Your task to perform on an android device: Go to location settings Image 0: 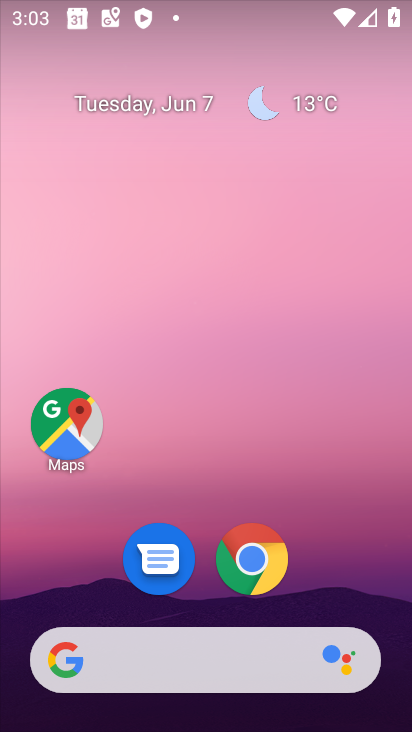
Step 0: drag from (344, 588) to (216, 36)
Your task to perform on an android device: Go to location settings Image 1: 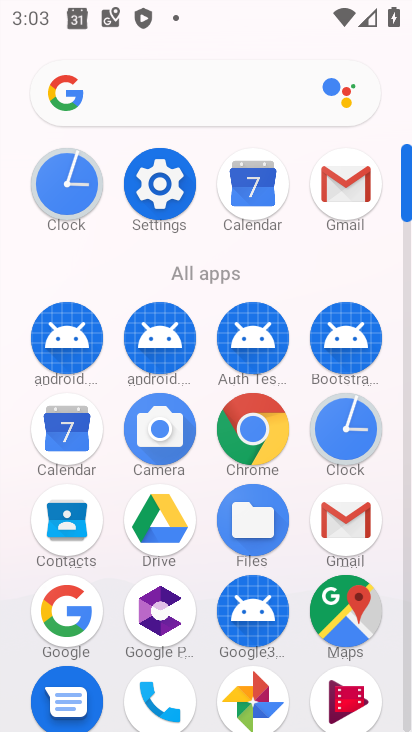
Step 1: click (163, 183)
Your task to perform on an android device: Go to location settings Image 2: 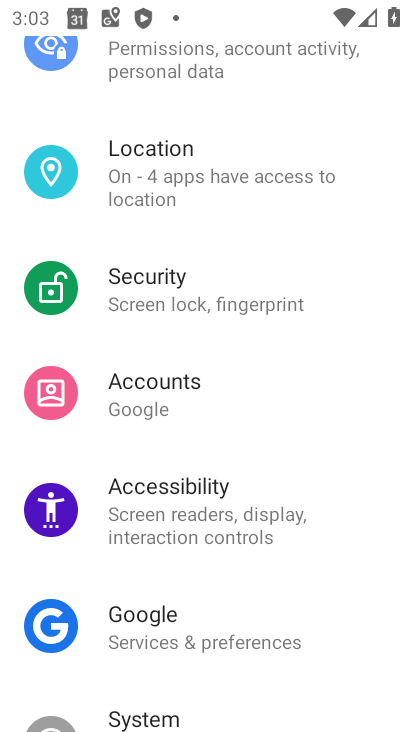
Step 2: drag from (177, 229) to (59, 622)
Your task to perform on an android device: Go to location settings Image 3: 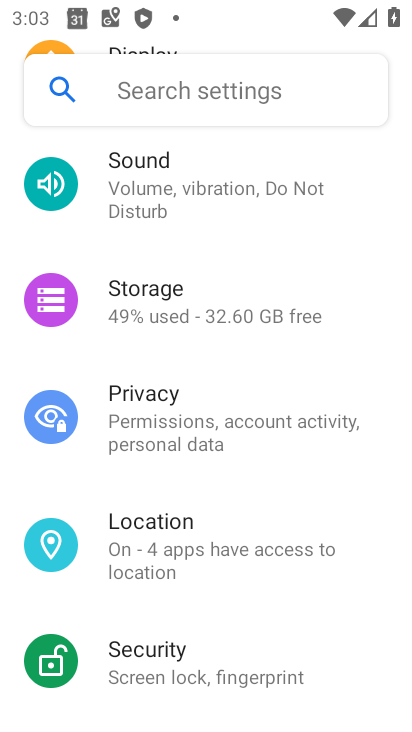
Step 3: click (133, 526)
Your task to perform on an android device: Go to location settings Image 4: 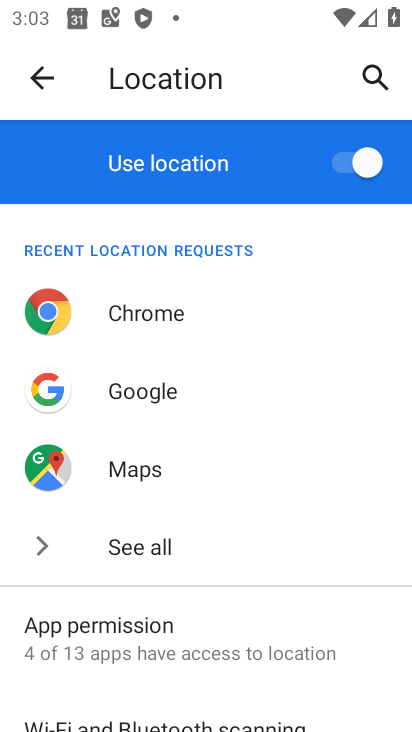
Step 4: task complete